Your task to perform on an android device: open wifi settings Image 0: 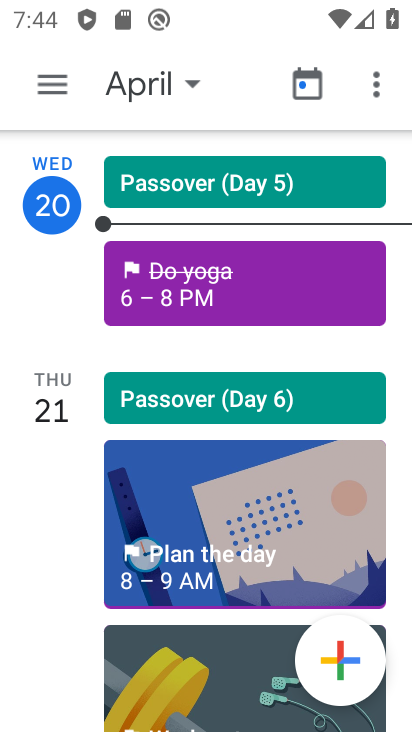
Step 0: drag from (326, 66) to (273, 434)
Your task to perform on an android device: open wifi settings Image 1: 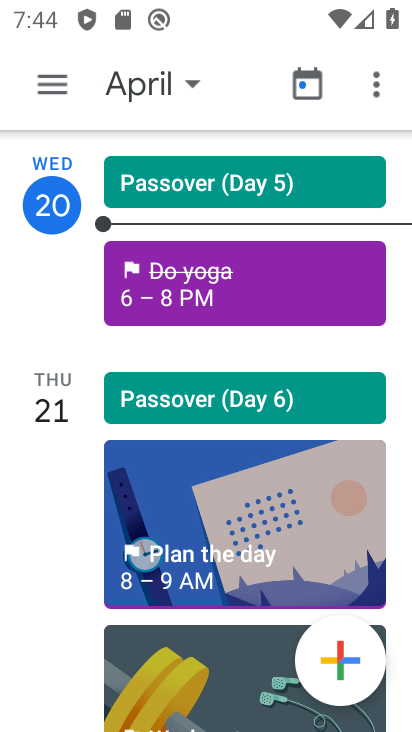
Step 1: drag from (194, 0) to (160, 727)
Your task to perform on an android device: open wifi settings Image 2: 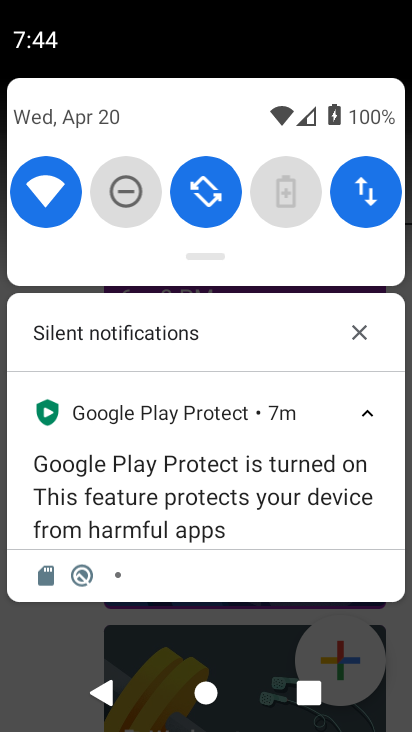
Step 2: click (42, 208)
Your task to perform on an android device: open wifi settings Image 3: 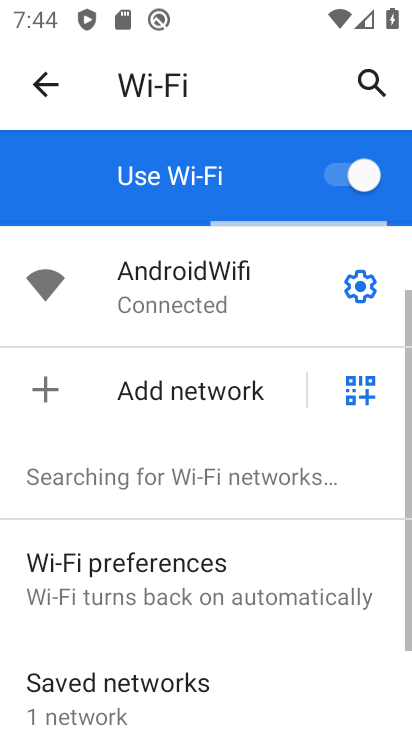
Step 3: task complete